Your task to perform on an android device: toggle notifications settings in the gmail app Image 0: 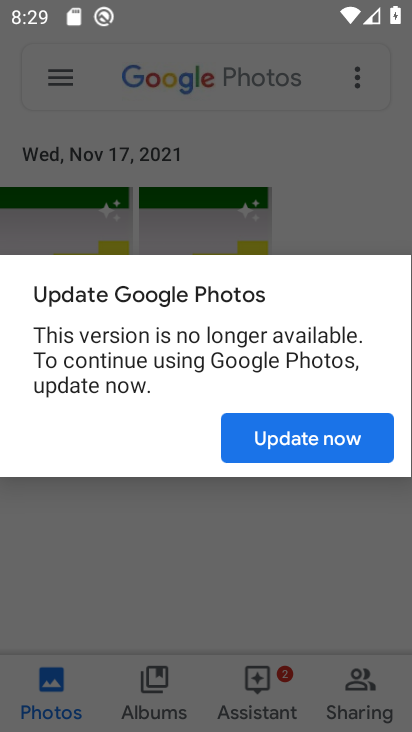
Step 0: press home button
Your task to perform on an android device: toggle notifications settings in the gmail app Image 1: 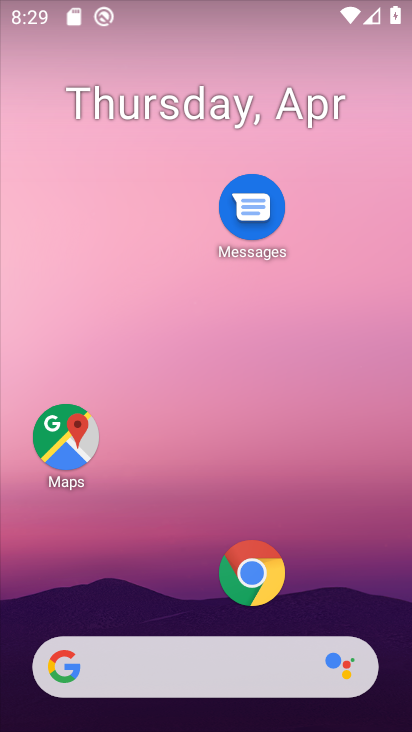
Step 1: drag from (185, 612) to (170, 84)
Your task to perform on an android device: toggle notifications settings in the gmail app Image 2: 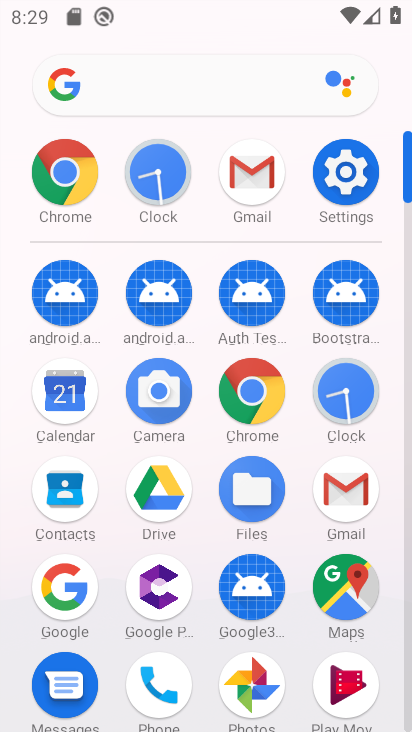
Step 2: click (344, 480)
Your task to perform on an android device: toggle notifications settings in the gmail app Image 3: 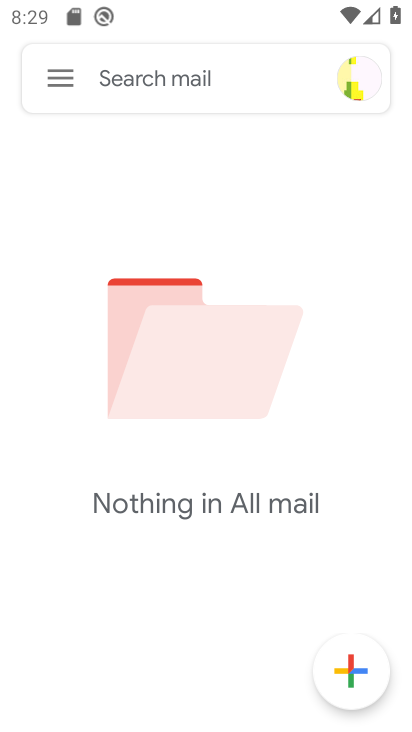
Step 3: click (52, 70)
Your task to perform on an android device: toggle notifications settings in the gmail app Image 4: 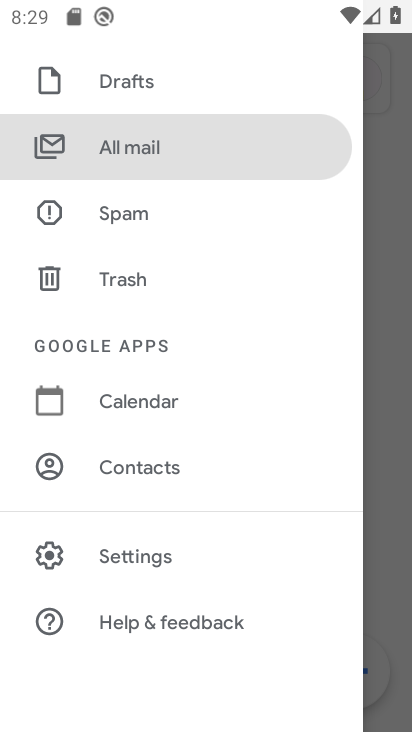
Step 4: click (84, 554)
Your task to perform on an android device: toggle notifications settings in the gmail app Image 5: 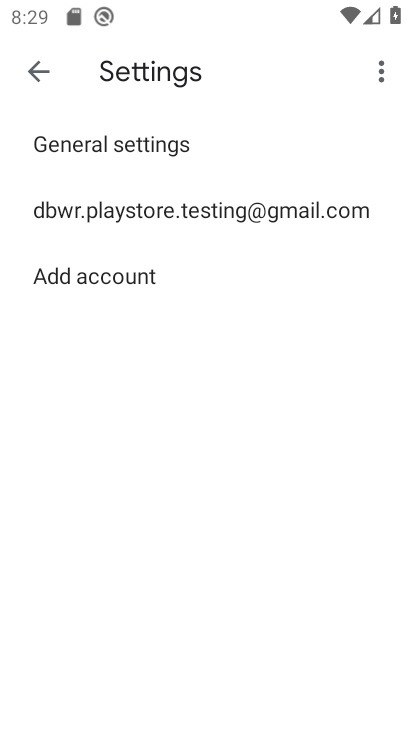
Step 5: click (198, 139)
Your task to perform on an android device: toggle notifications settings in the gmail app Image 6: 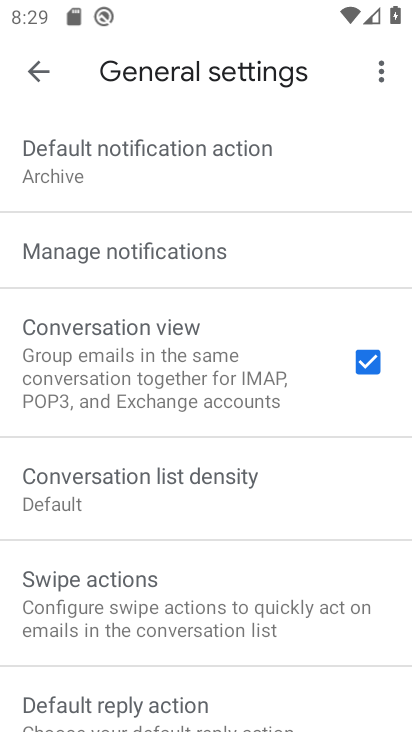
Step 6: click (245, 252)
Your task to perform on an android device: toggle notifications settings in the gmail app Image 7: 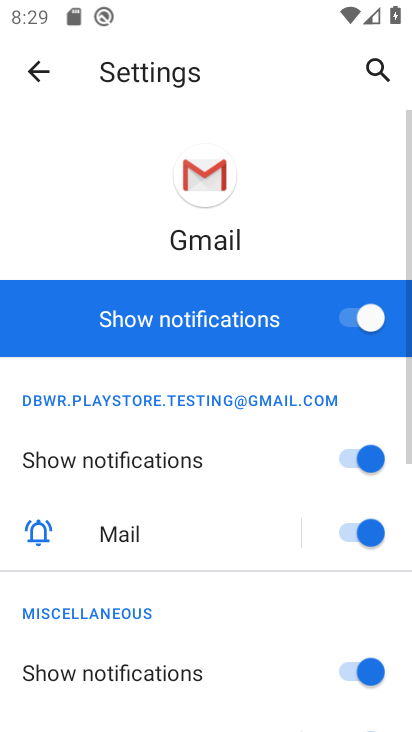
Step 7: click (351, 314)
Your task to perform on an android device: toggle notifications settings in the gmail app Image 8: 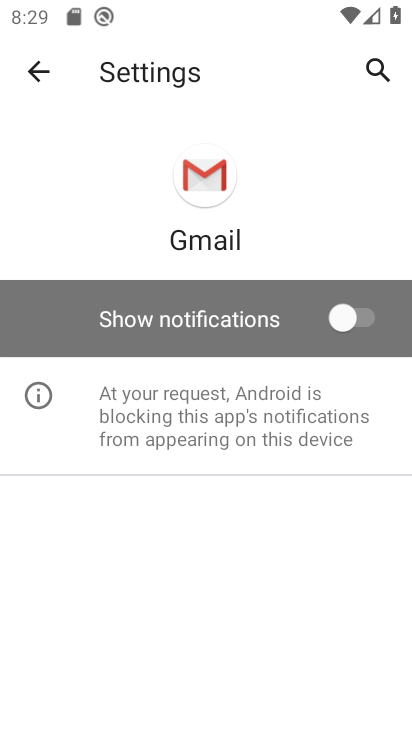
Step 8: task complete